Your task to perform on an android device: toggle notification dots Image 0: 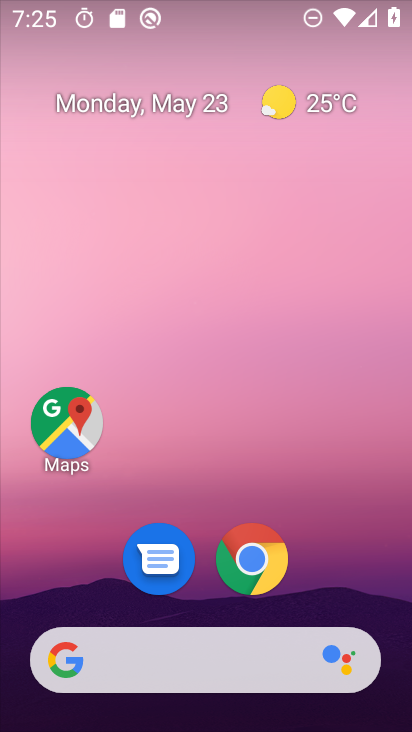
Step 0: drag from (400, 656) to (258, 4)
Your task to perform on an android device: toggle notification dots Image 1: 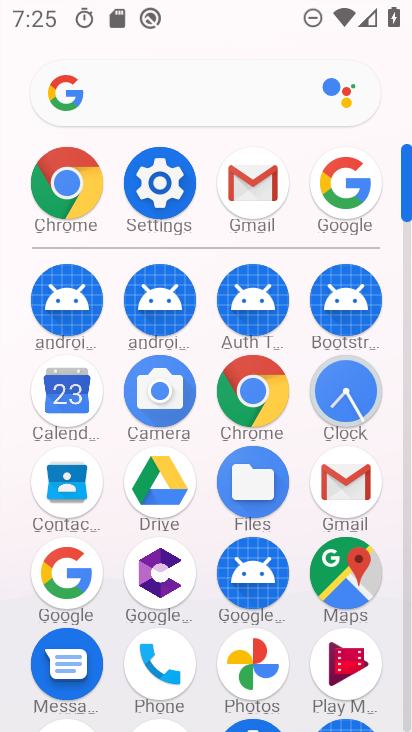
Step 1: click (167, 199)
Your task to perform on an android device: toggle notification dots Image 2: 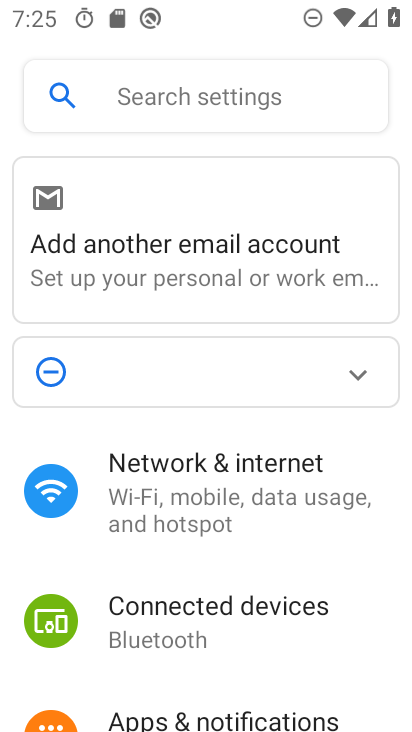
Step 2: click (235, 719)
Your task to perform on an android device: toggle notification dots Image 3: 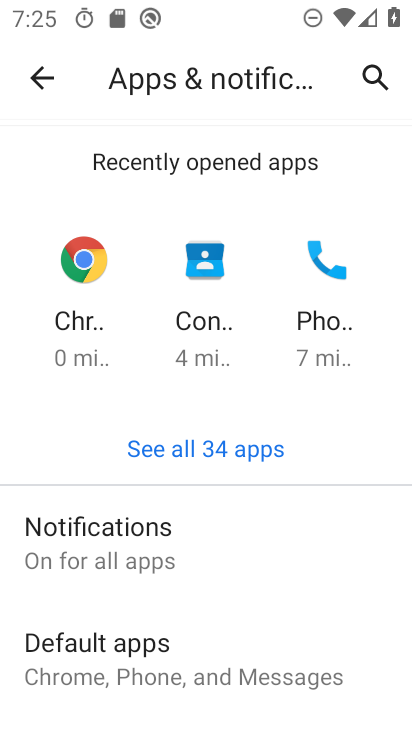
Step 3: click (186, 540)
Your task to perform on an android device: toggle notification dots Image 4: 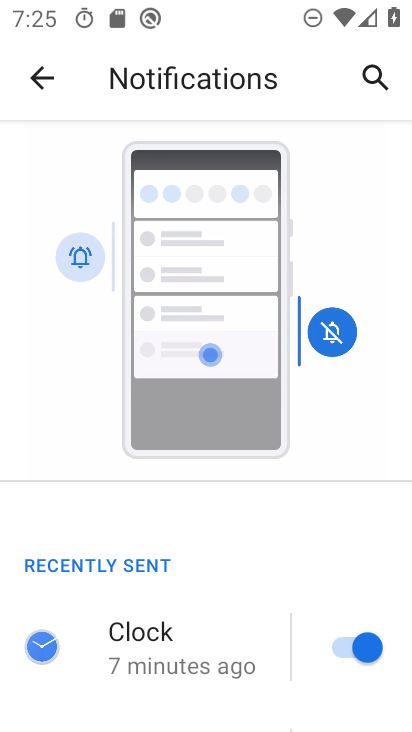
Step 4: drag from (189, 661) to (210, 18)
Your task to perform on an android device: toggle notification dots Image 5: 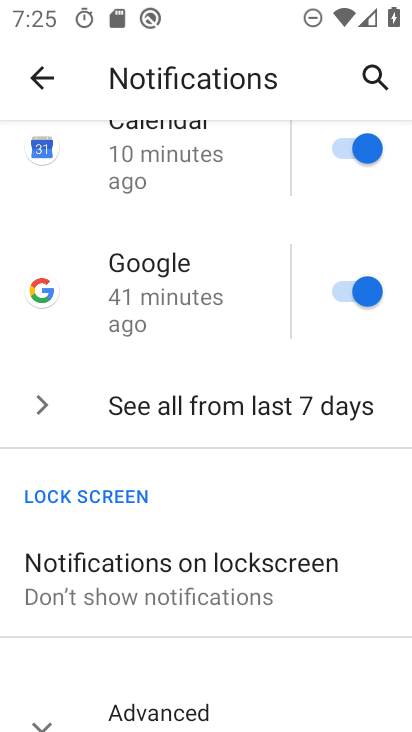
Step 5: drag from (225, 628) to (178, 130)
Your task to perform on an android device: toggle notification dots Image 6: 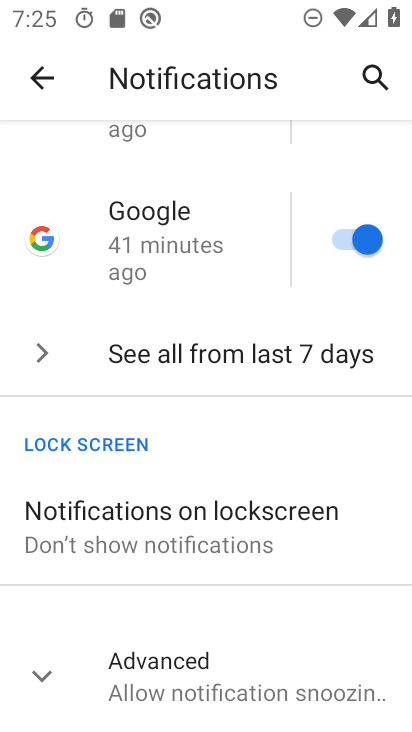
Step 6: click (176, 630)
Your task to perform on an android device: toggle notification dots Image 7: 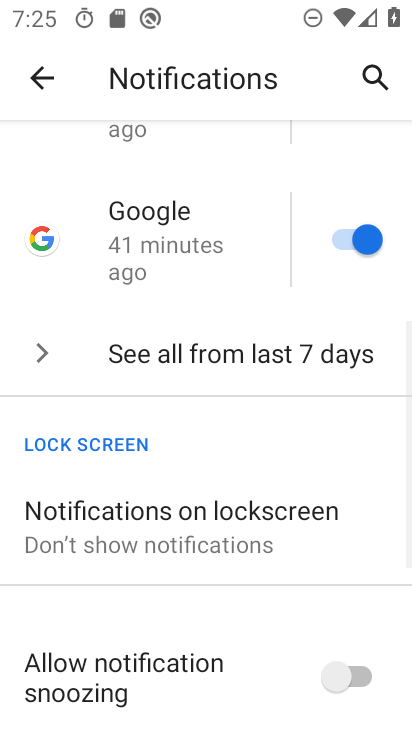
Step 7: drag from (177, 681) to (195, 99)
Your task to perform on an android device: toggle notification dots Image 8: 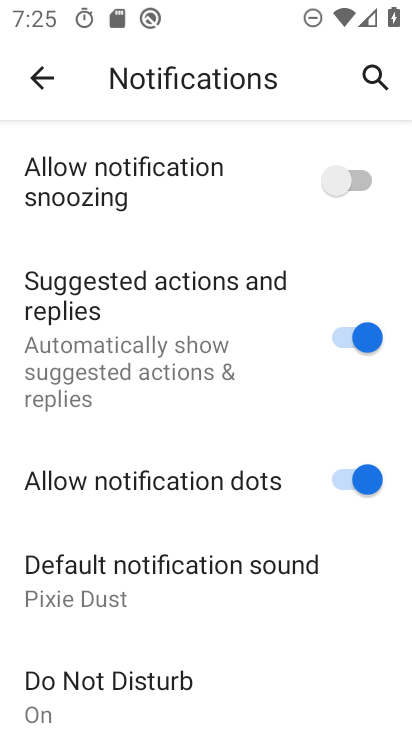
Step 8: click (290, 489)
Your task to perform on an android device: toggle notification dots Image 9: 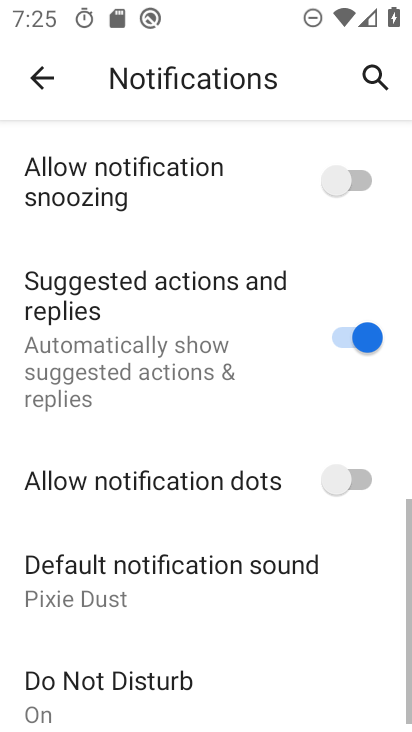
Step 9: task complete